Your task to perform on an android device: search for starred emails in the gmail app Image 0: 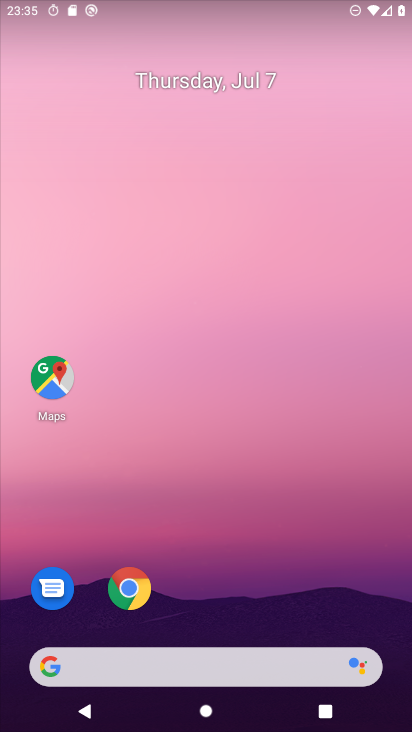
Step 0: drag from (332, 569) to (268, 37)
Your task to perform on an android device: search for starred emails in the gmail app Image 1: 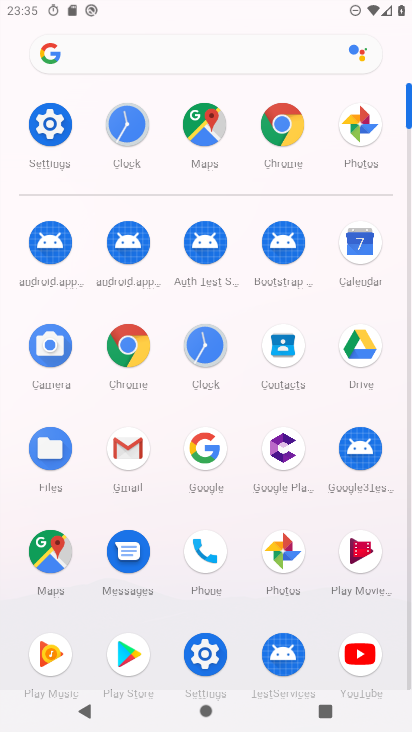
Step 1: click (133, 450)
Your task to perform on an android device: search for starred emails in the gmail app Image 2: 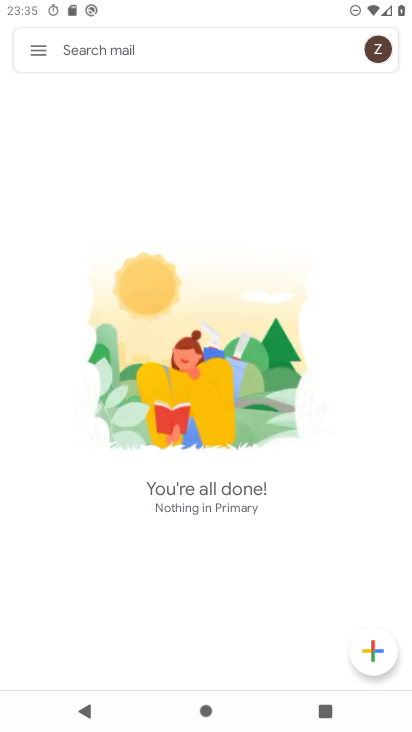
Step 2: click (29, 51)
Your task to perform on an android device: search for starred emails in the gmail app Image 3: 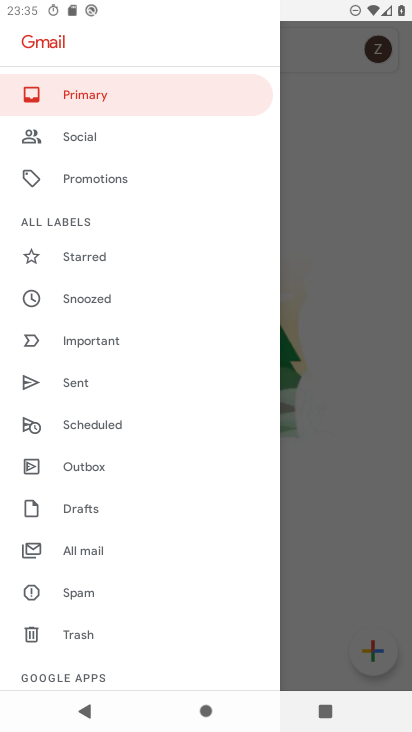
Step 3: click (104, 252)
Your task to perform on an android device: search for starred emails in the gmail app Image 4: 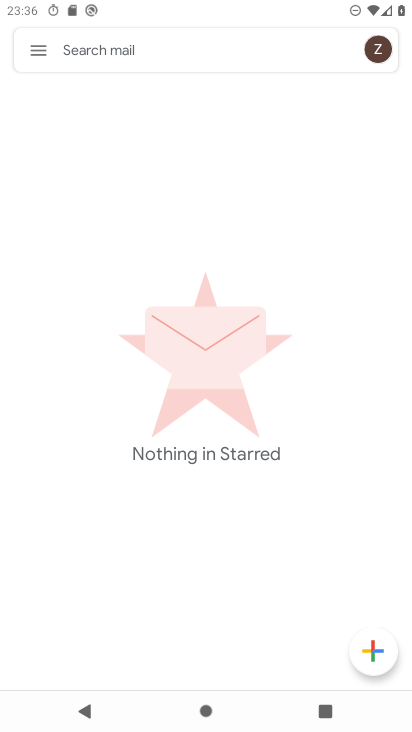
Step 4: task complete